Your task to perform on an android device: Check the news Image 0: 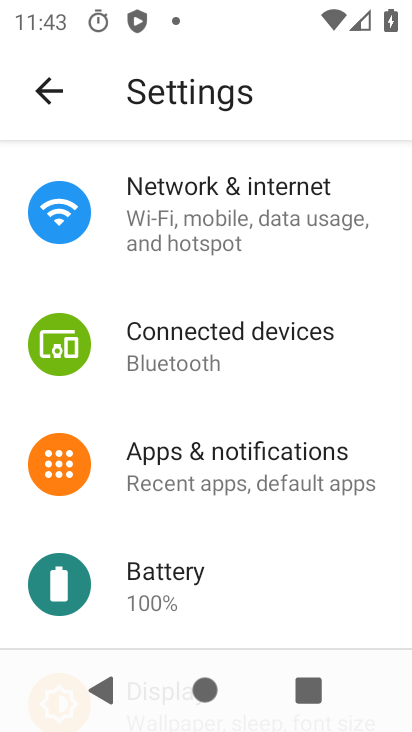
Step 0: press home button
Your task to perform on an android device: Check the news Image 1: 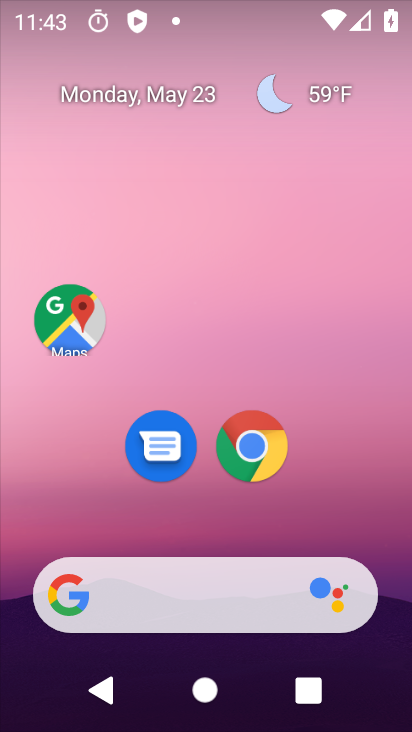
Step 1: drag from (228, 559) to (275, 163)
Your task to perform on an android device: Check the news Image 2: 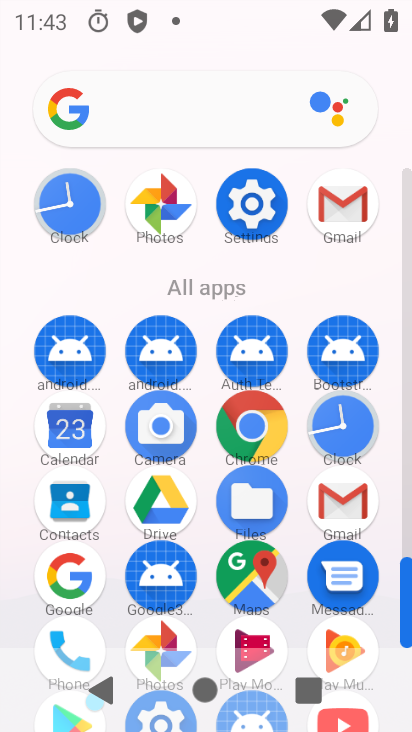
Step 2: click (76, 576)
Your task to perform on an android device: Check the news Image 3: 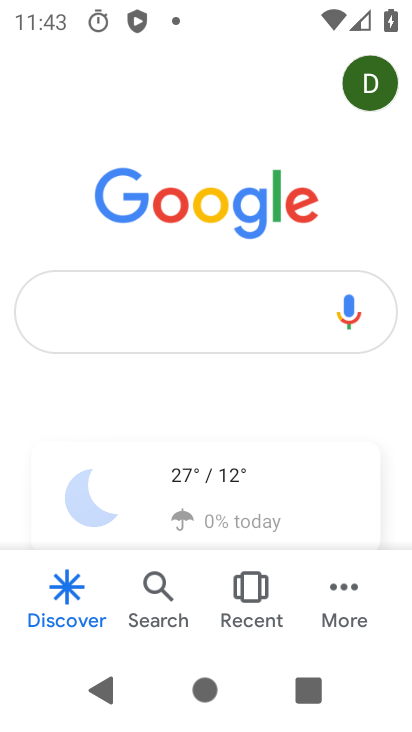
Step 3: click (130, 312)
Your task to perform on an android device: Check the news Image 4: 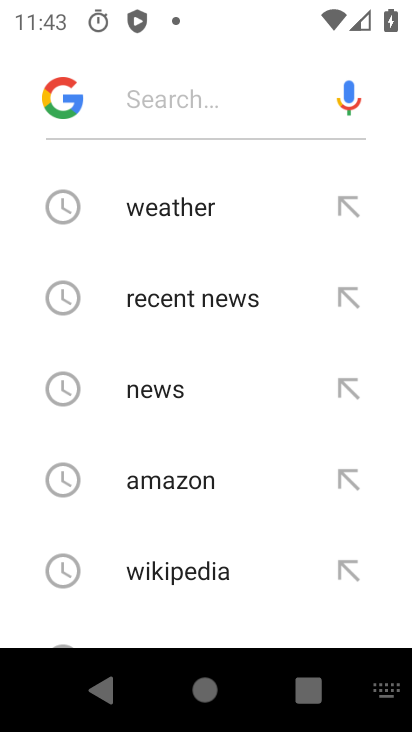
Step 4: click (170, 393)
Your task to perform on an android device: Check the news Image 5: 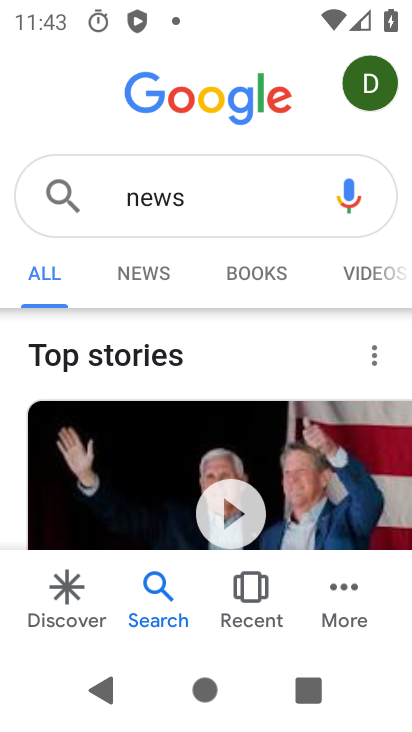
Step 5: task complete